Your task to perform on an android device: turn on data saver in the chrome app Image 0: 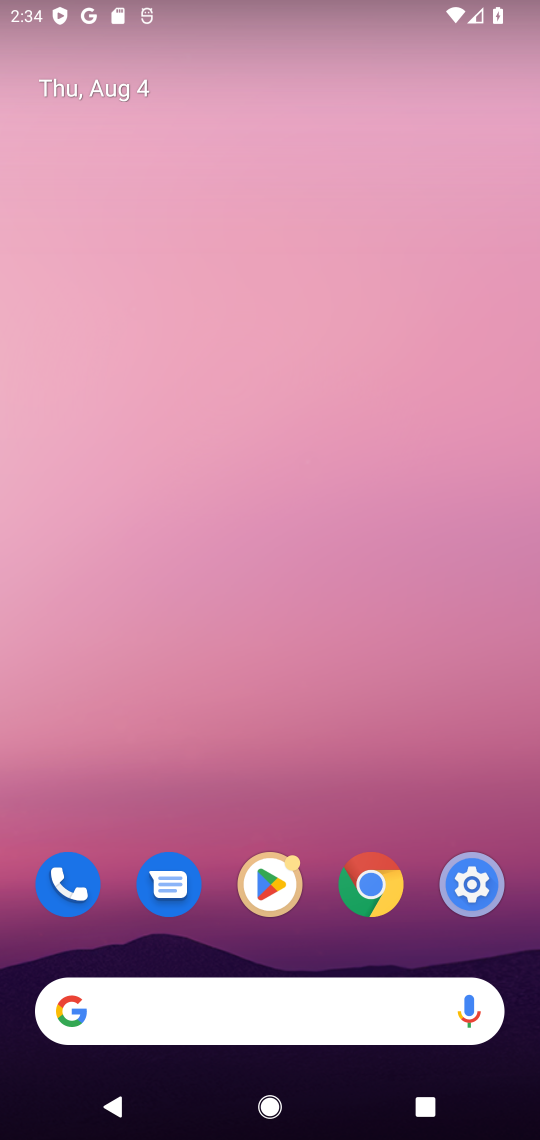
Step 0: drag from (289, 907) to (424, 346)
Your task to perform on an android device: turn on data saver in the chrome app Image 1: 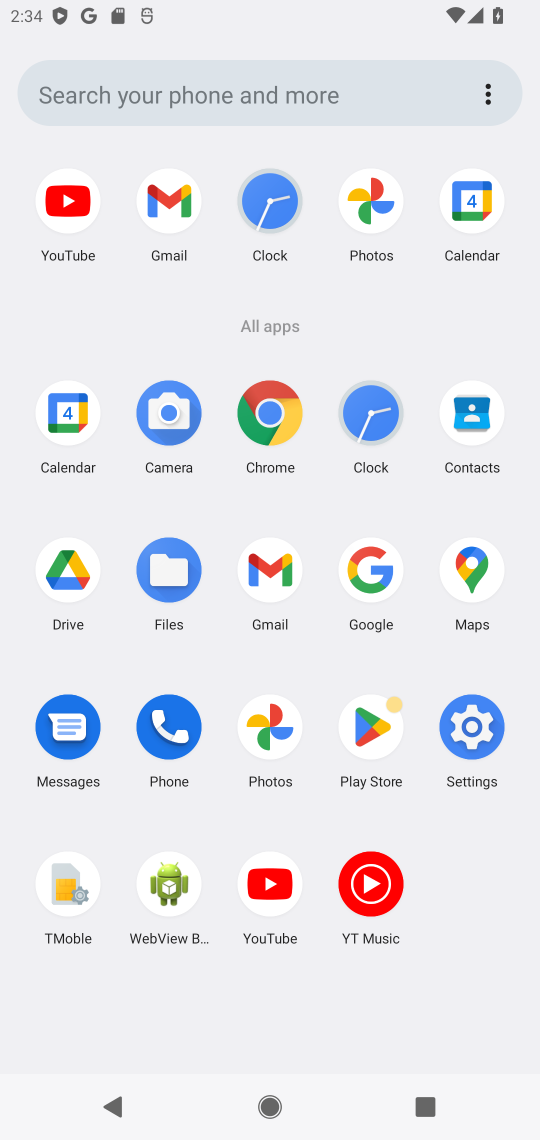
Step 1: click (259, 411)
Your task to perform on an android device: turn on data saver in the chrome app Image 2: 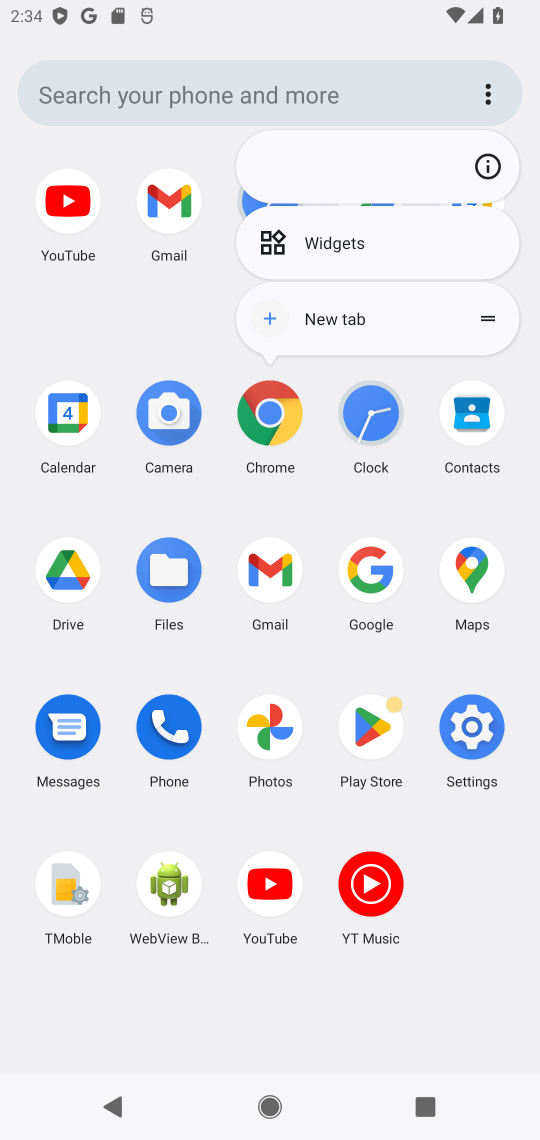
Step 2: click (498, 154)
Your task to perform on an android device: turn on data saver in the chrome app Image 3: 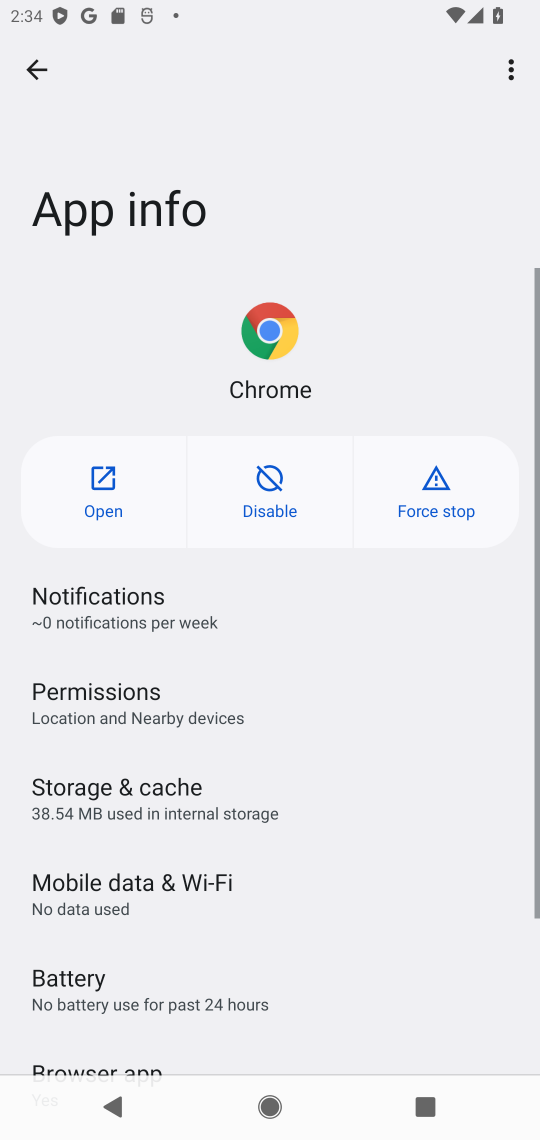
Step 3: click (86, 514)
Your task to perform on an android device: turn on data saver in the chrome app Image 4: 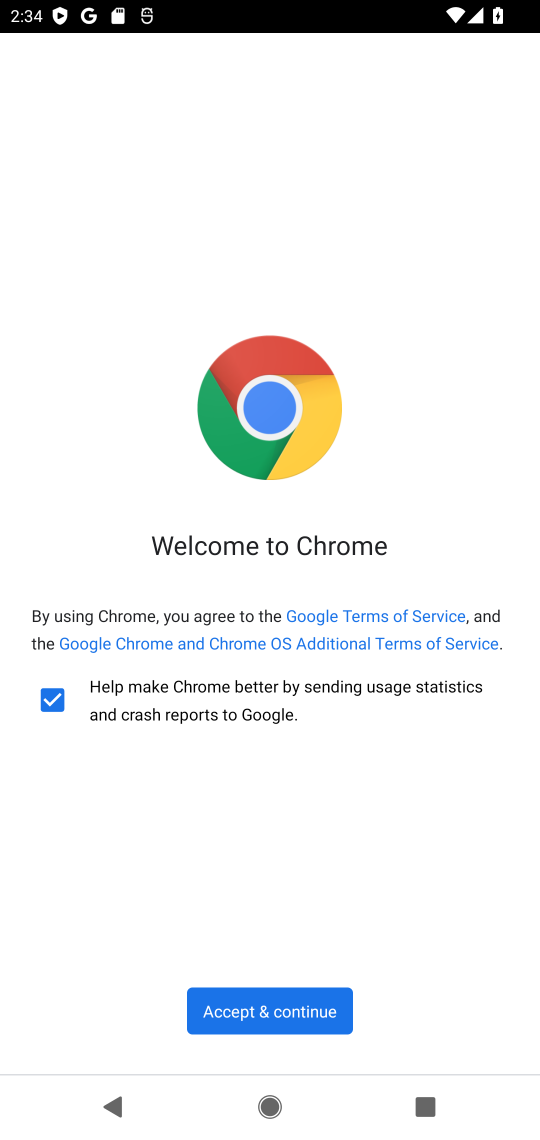
Step 4: click (314, 1012)
Your task to perform on an android device: turn on data saver in the chrome app Image 5: 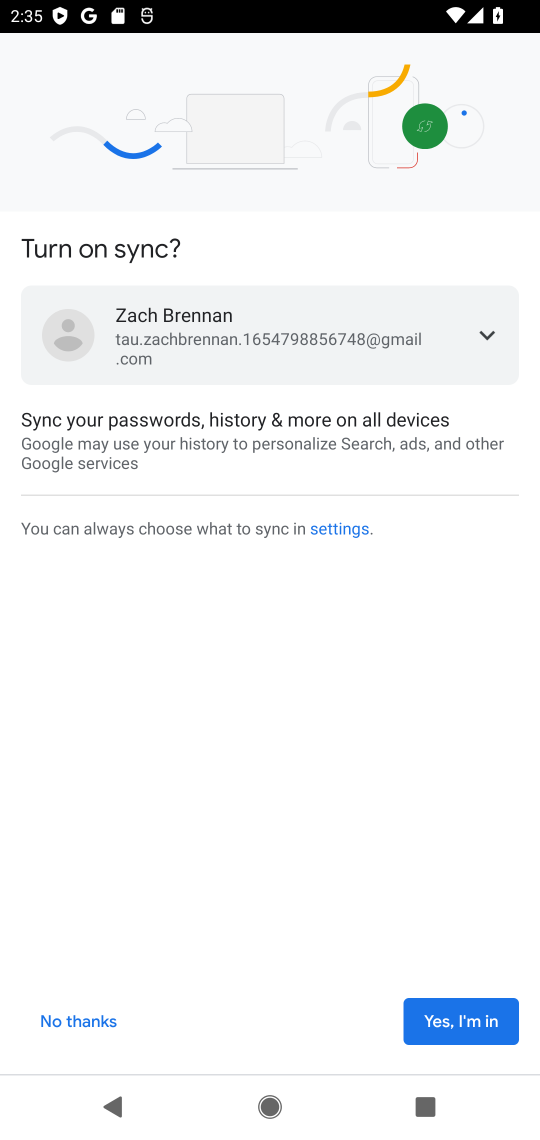
Step 5: click (450, 1014)
Your task to perform on an android device: turn on data saver in the chrome app Image 6: 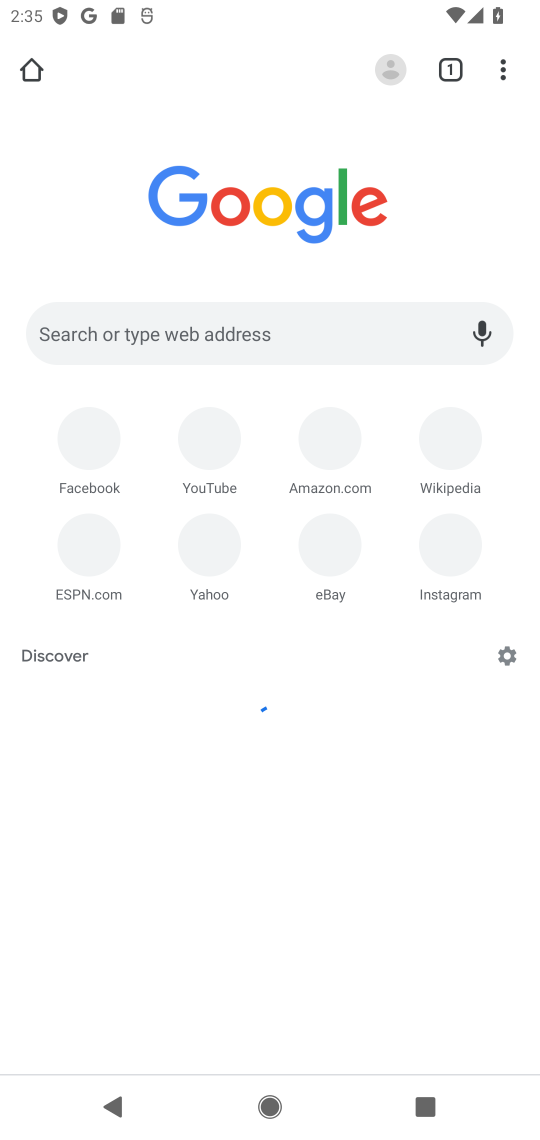
Step 6: drag from (502, 65) to (320, 618)
Your task to perform on an android device: turn on data saver in the chrome app Image 7: 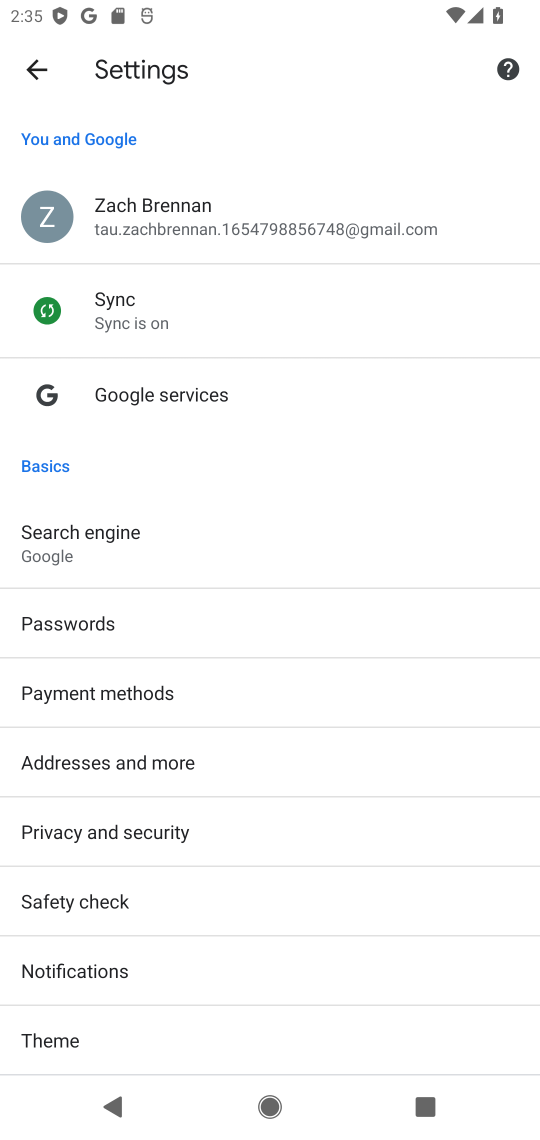
Step 7: drag from (192, 993) to (293, 382)
Your task to perform on an android device: turn on data saver in the chrome app Image 8: 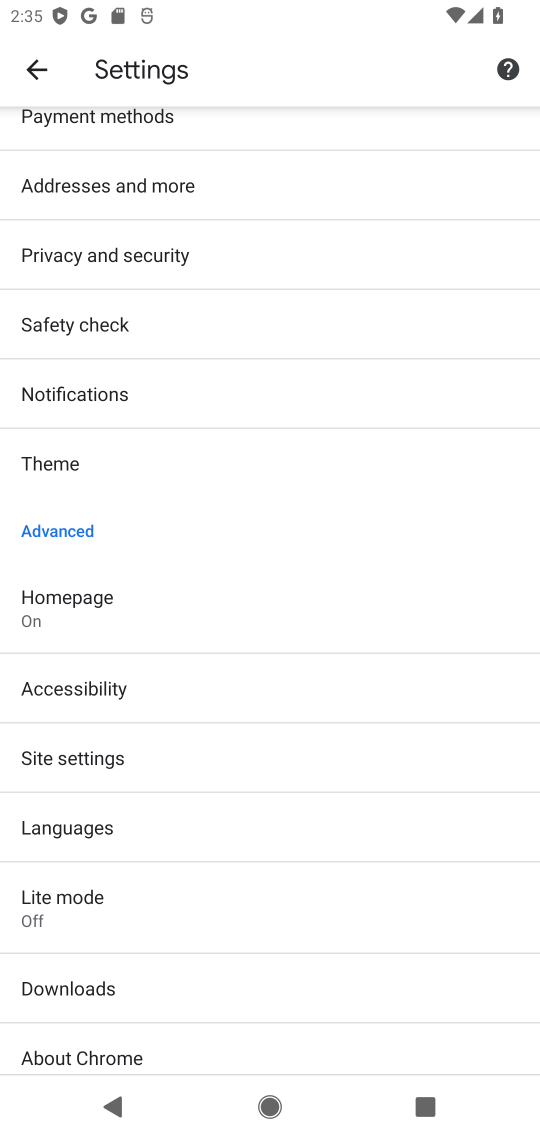
Step 8: drag from (157, 881) to (254, 466)
Your task to perform on an android device: turn on data saver in the chrome app Image 9: 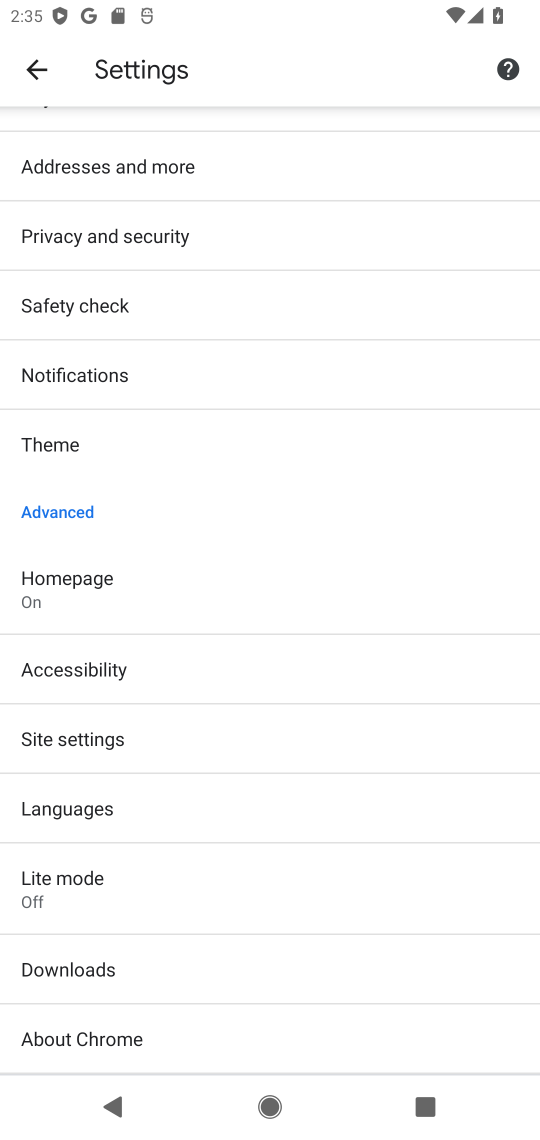
Step 9: click (99, 889)
Your task to perform on an android device: turn on data saver in the chrome app Image 10: 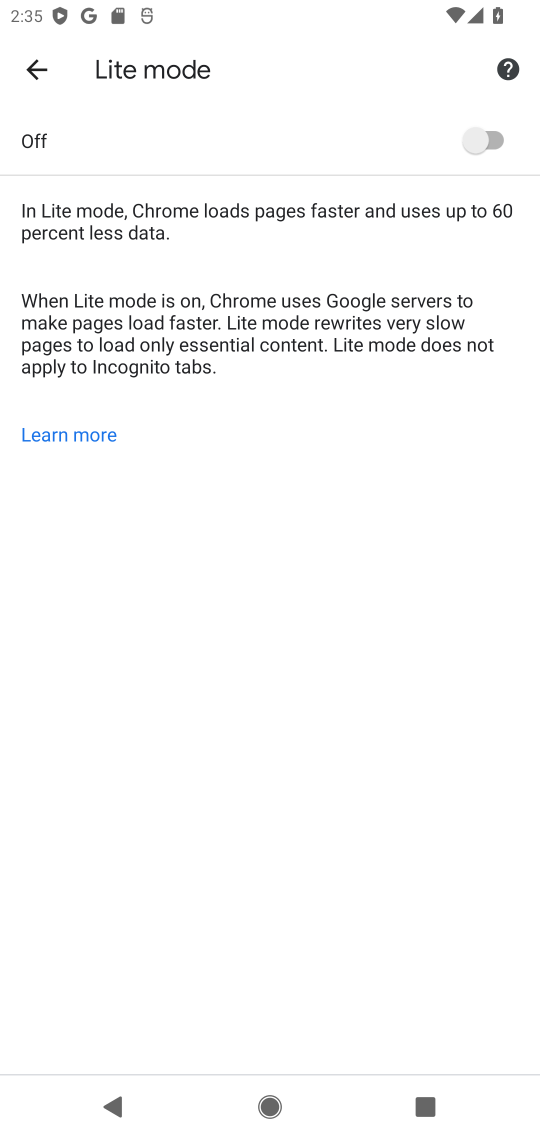
Step 10: click (376, 127)
Your task to perform on an android device: turn on data saver in the chrome app Image 11: 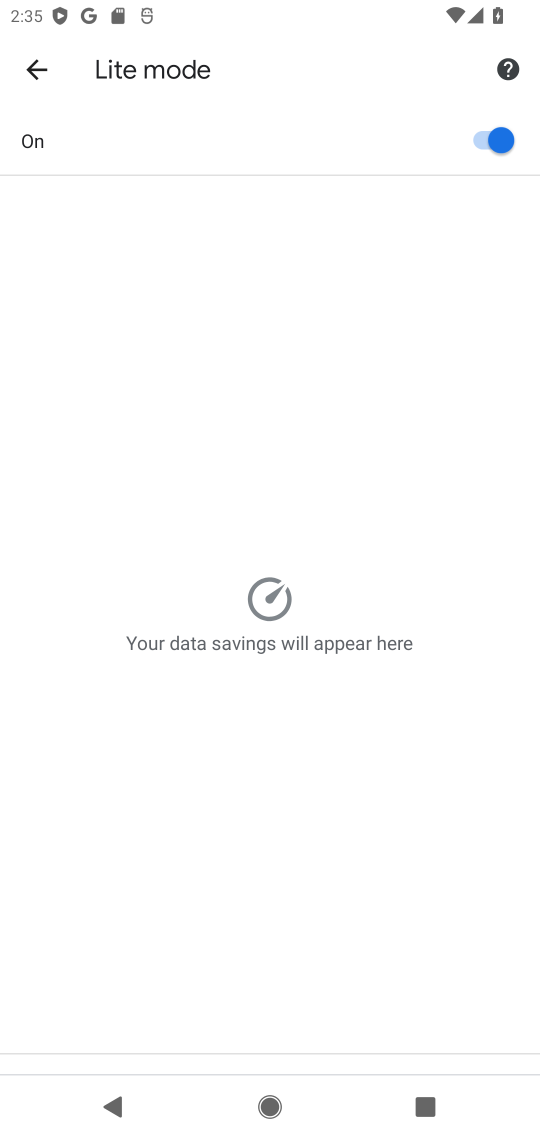
Step 11: task complete